Your task to perform on an android device: toggle location history Image 0: 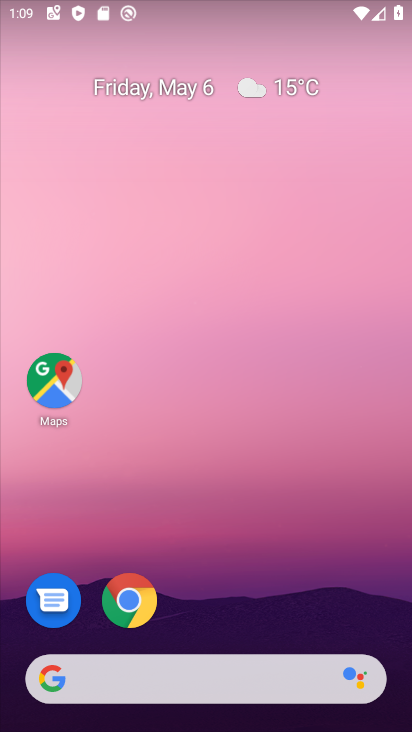
Step 0: drag from (337, 599) to (310, 7)
Your task to perform on an android device: toggle location history Image 1: 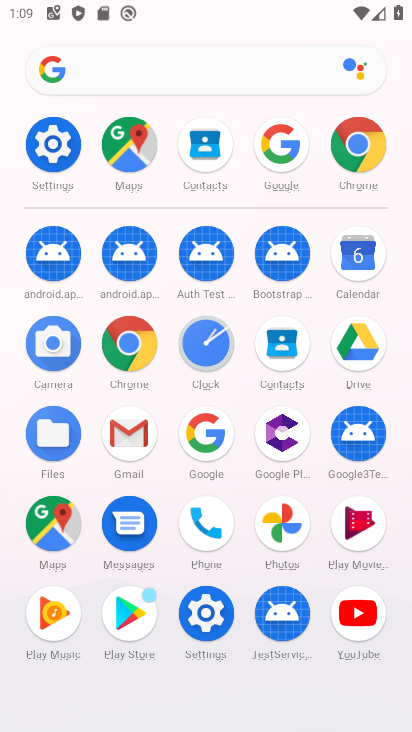
Step 1: click (55, 147)
Your task to perform on an android device: toggle location history Image 2: 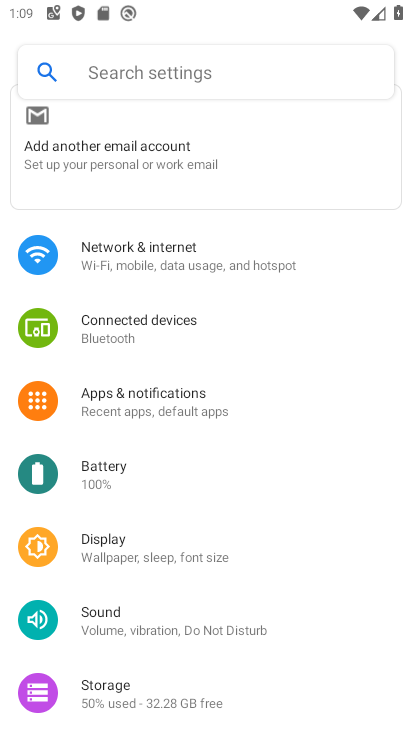
Step 2: drag from (91, 666) to (171, 306)
Your task to perform on an android device: toggle location history Image 3: 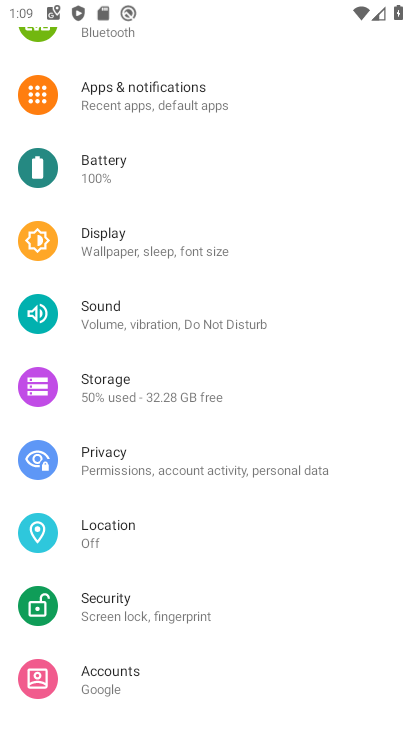
Step 3: click (130, 530)
Your task to perform on an android device: toggle location history Image 4: 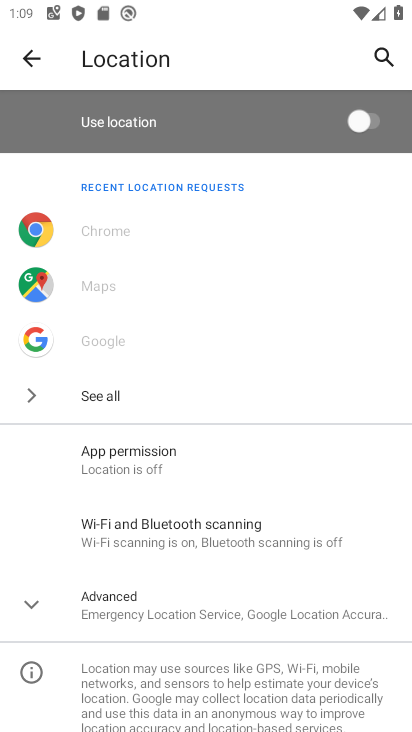
Step 4: click (51, 598)
Your task to perform on an android device: toggle location history Image 5: 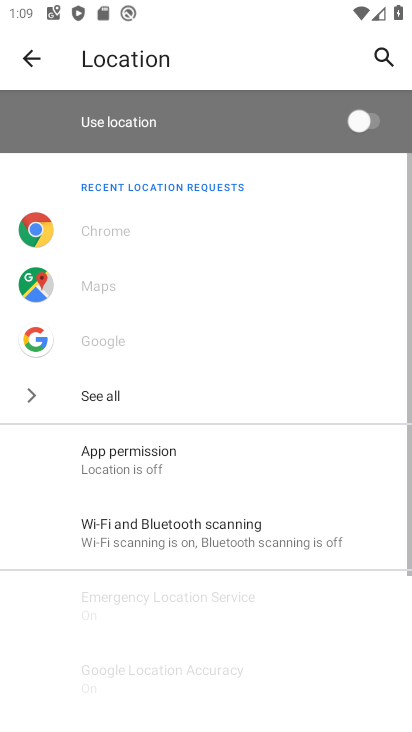
Step 5: drag from (77, 615) to (148, 322)
Your task to perform on an android device: toggle location history Image 6: 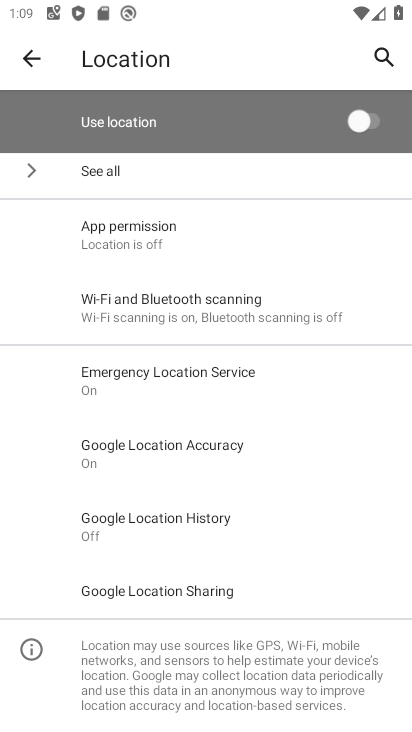
Step 6: click (154, 528)
Your task to perform on an android device: toggle location history Image 7: 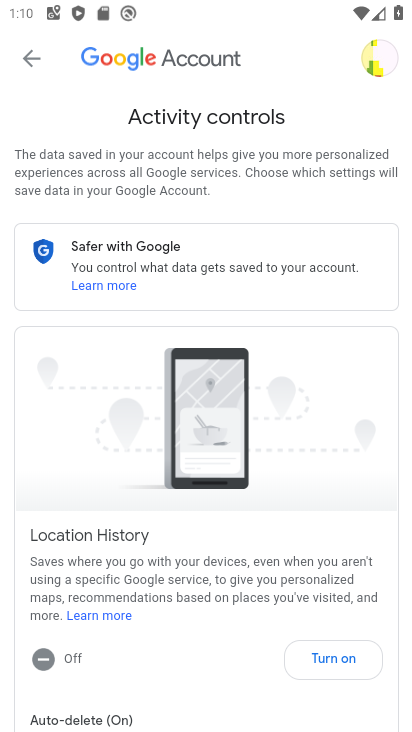
Step 7: click (326, 651)
Your task to perform on an android device: toggle location history Image 8: 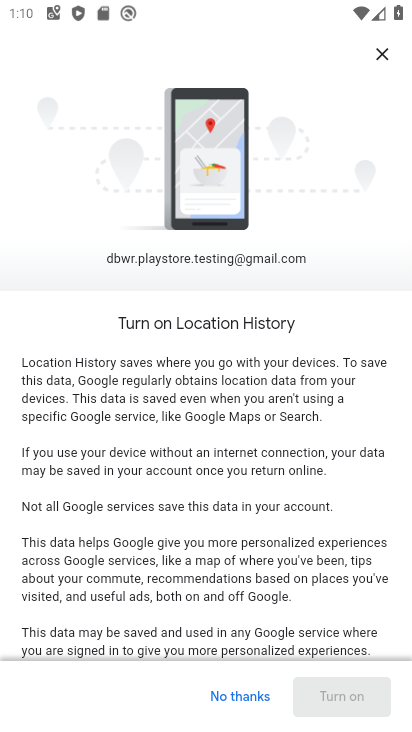
Step 8: task complete